Your task to perform on an android device: Open notification settings Image 0: 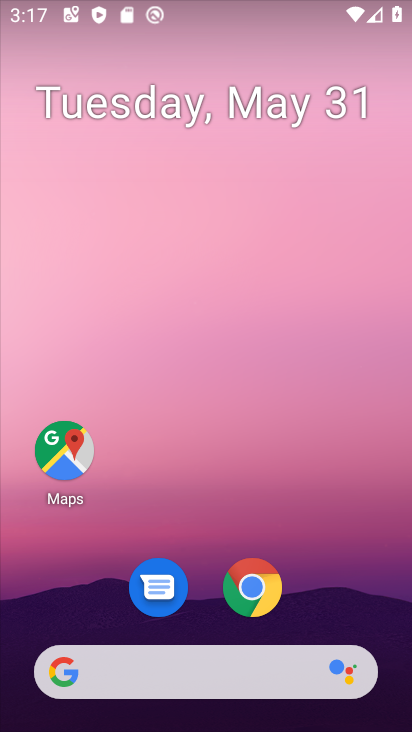
Step 0: drag from (197, 621) to (203, 6)
Your task to perform on an android device: Open notification settings Image 1: 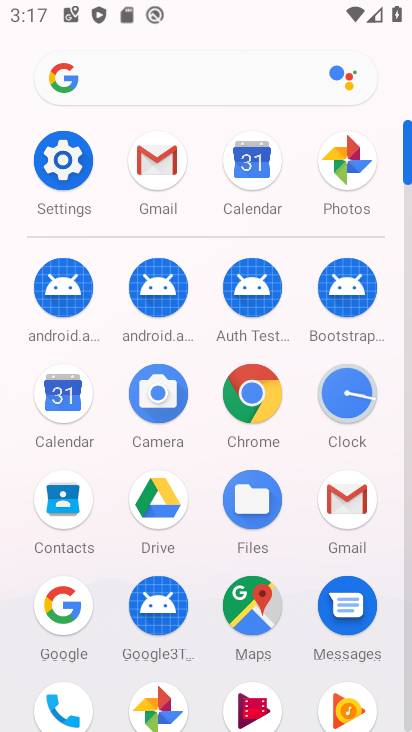
Step 1: click (56, 169)
Your task to perform on an android device: Open notification settings Image 2: 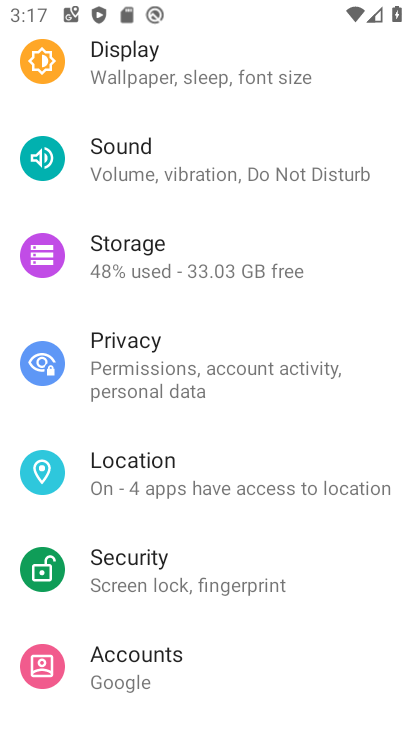
Step 2: drag from (254, 340) to (285, 657)
Your task to perform on an android device: Open notification settings Image 3: 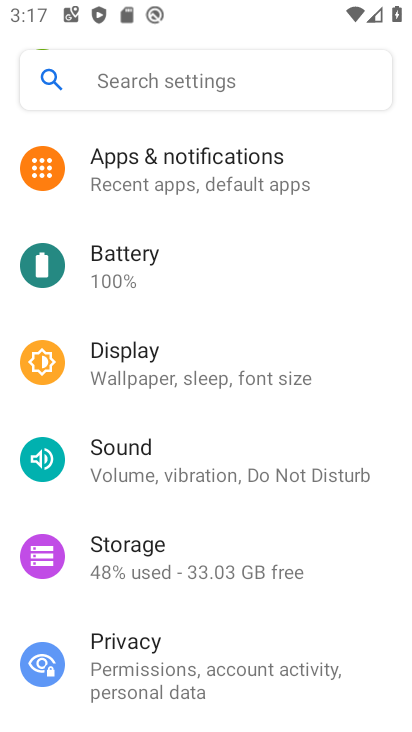
Step 3: click (204, 169)
Your task to perform on an android device: Open notification settings Image 4: 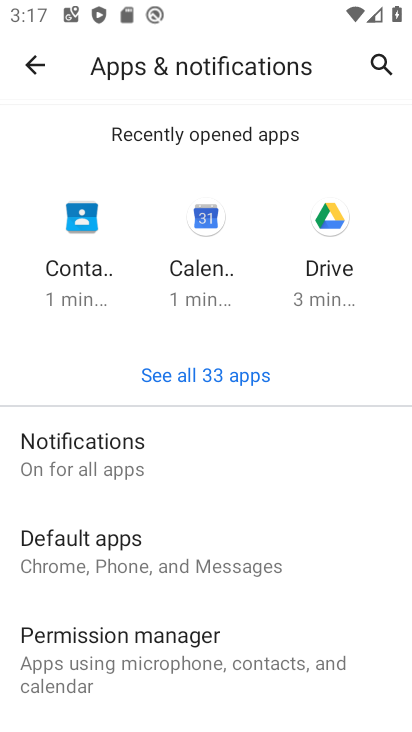
Step 4: click (82, 462)
Your task to perform on an android device: Open notification settings Image 5: 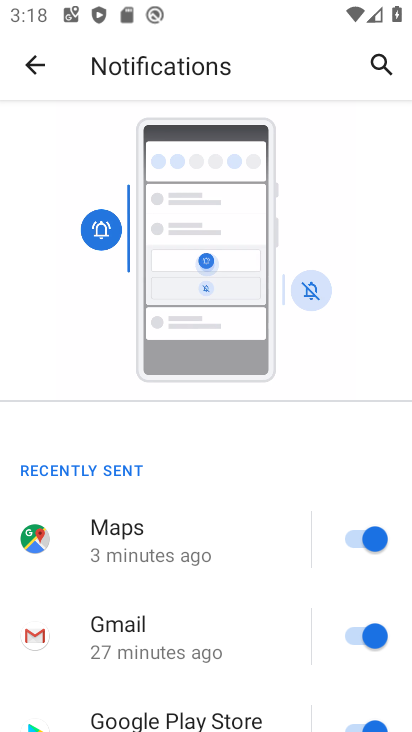
Step 5: task complete